Your task to perform on an android device: Open accessibility settings Image 0: 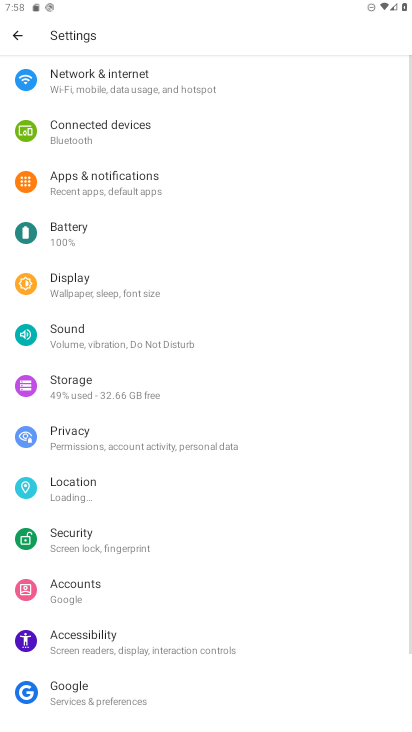
Step 0: click (138, 631)
Your task to perform on an android device: Open accessibility settings Image 1: 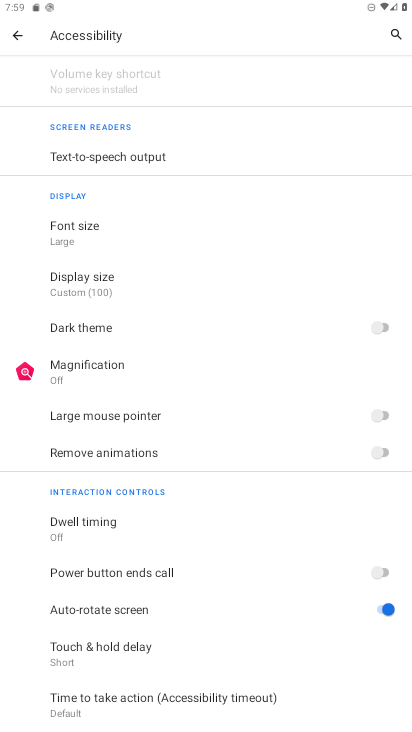
Step 1: task complete